Your task to perform on an android device: toggle translation in the chrome app Image 0: 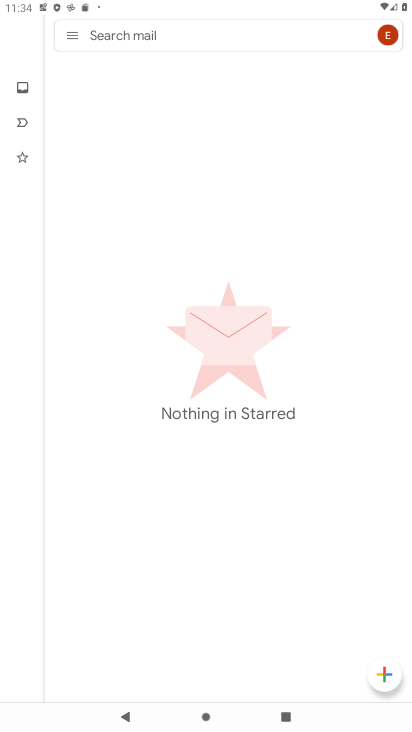
Step 0: task complete